Your task to perform on an android device: Open maps Image 0: 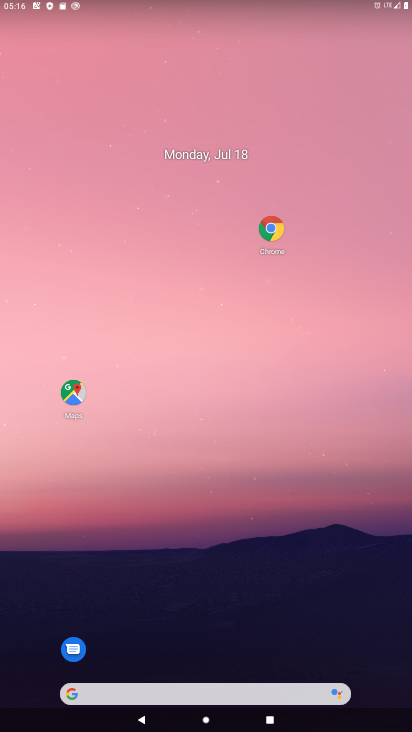
Step 0: click (79, 396)
Your task to perform on an android device: Open maps Image 1: 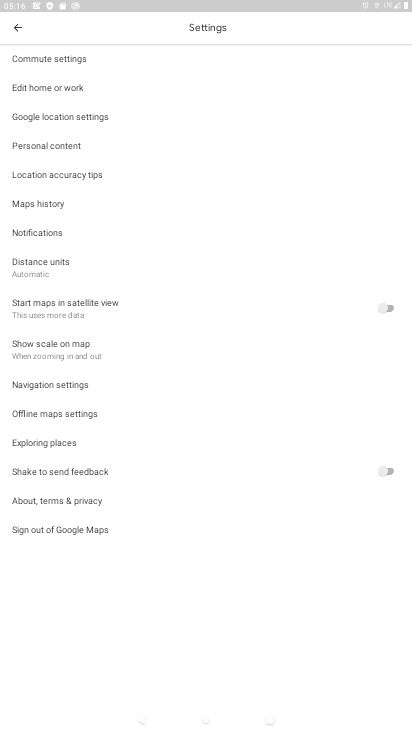
Step 1: click (22, 25)
Your task to perform on an android device: Open maps Image 2: 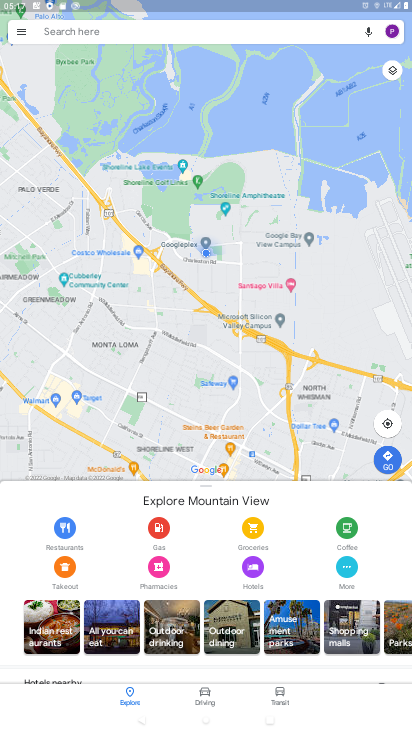
Step 2: task complete